Your task to perform on an android device: turn notification dots off Image 0: 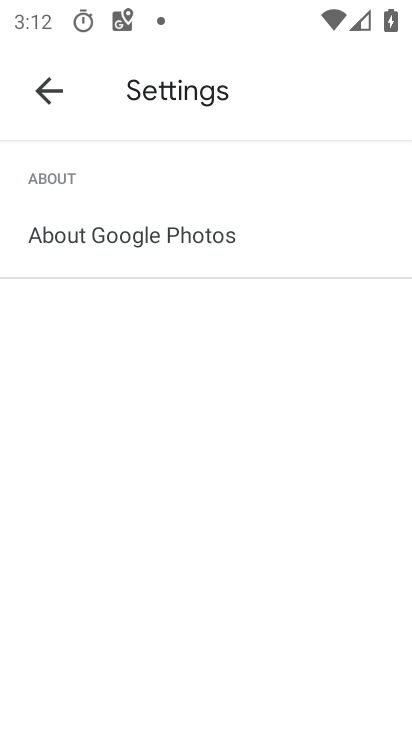
Step 0: press home button
Your task to perform on an android device: turn notification dots off Image 1: 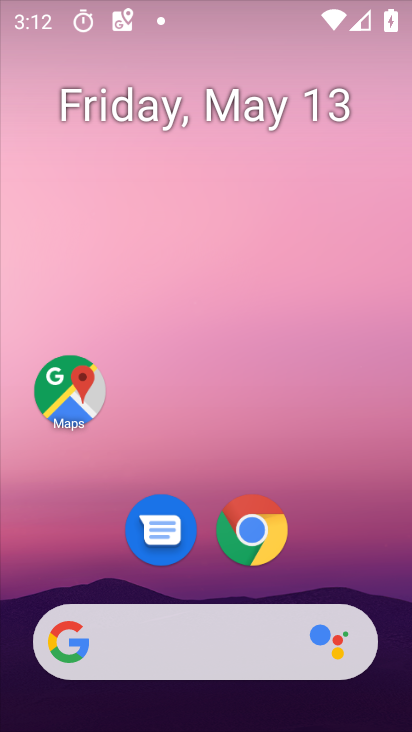
Step 1: drag from (344, 543) to (349, 47)
Your task to perform on an android device: turn notification dots off Image 2: 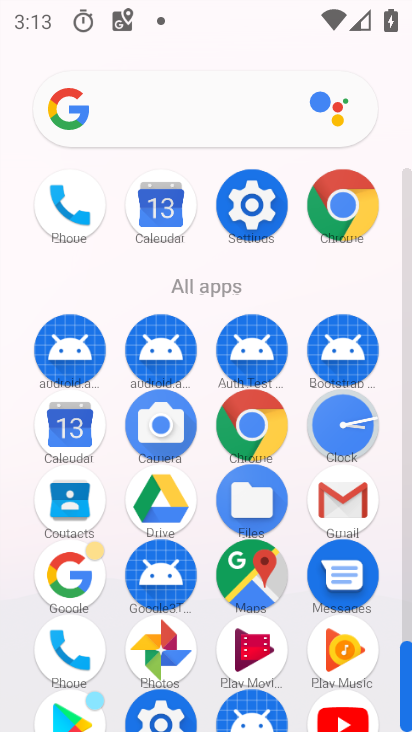
Step 2: click (239, 209)
Your task to perform on an android device: turn notification dots off Image 3: 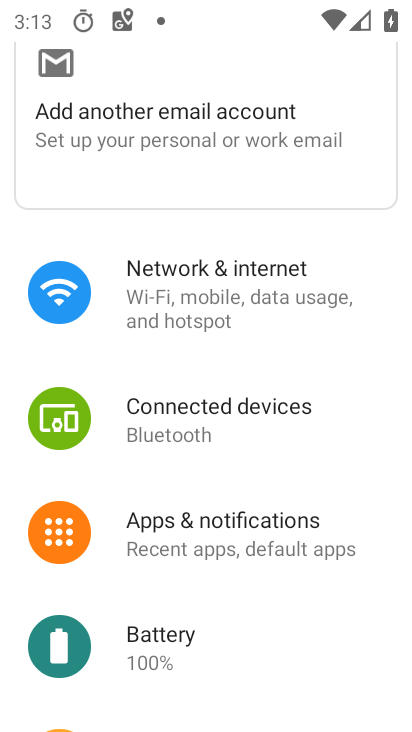
Step 3: drag from (209, 551) to (227, 243)
Your task to perform on an android device: turn notification dots off Image 4: 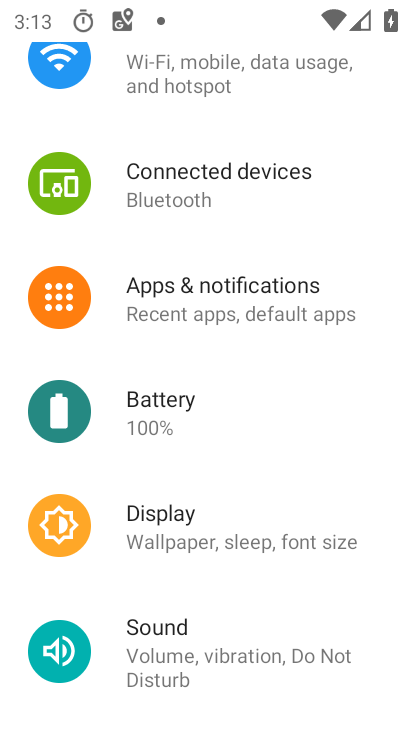
Step 4: click (222, 299)
Your task to perform on an android device: turn notification dots off Image 5: 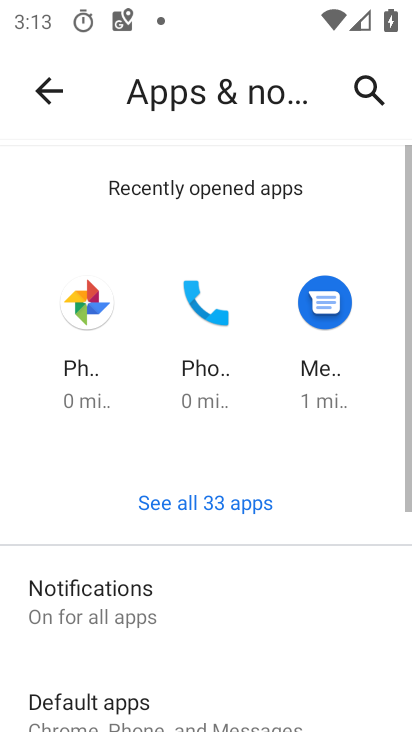
Step 5: drag from (183, 637) to (278, 152)
Your task to perform on an android device: turn notification dots off Image 6: 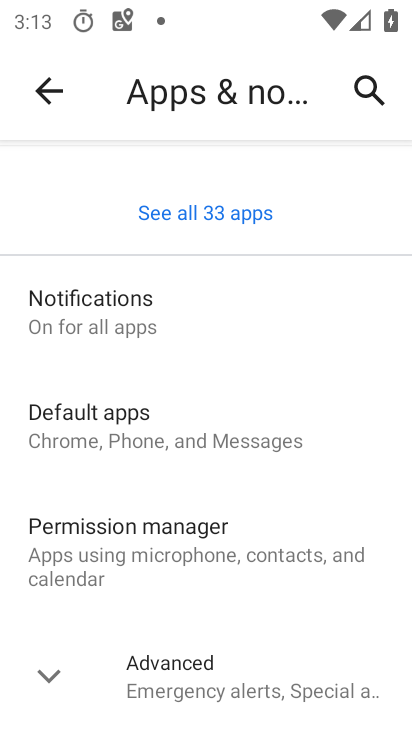
Step 6: click (202, 676)
Your task to perform on an android device: turn notification dots off Image 7: 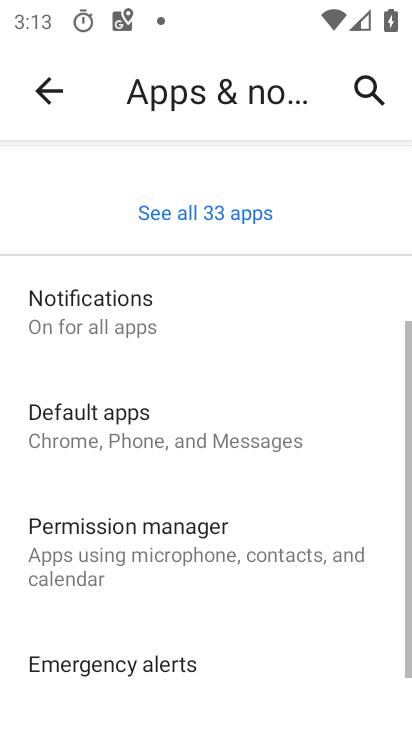
Step 7: drag from (243, 618) to (254, 106)
Your task to perform on an android device: turn notification dots off Image 8: 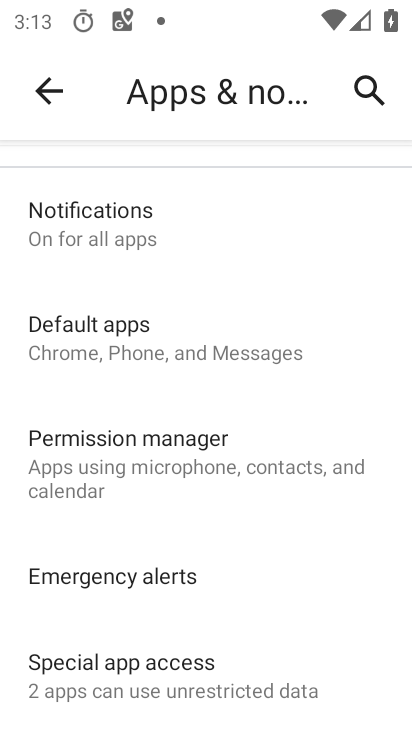
Step 8: click (66, 211)
Your task to perform on an android device: turn notification dots off Image 9: 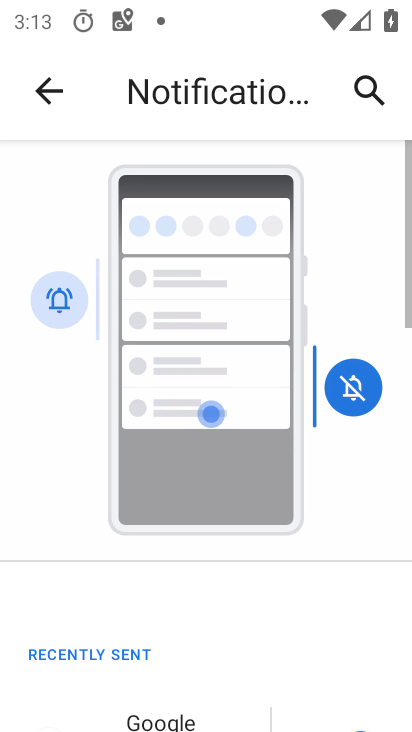
Step 9: drag from (215, 650) to (273, 126)
Your task to perform on an android device: turn notification dots off Image 10: 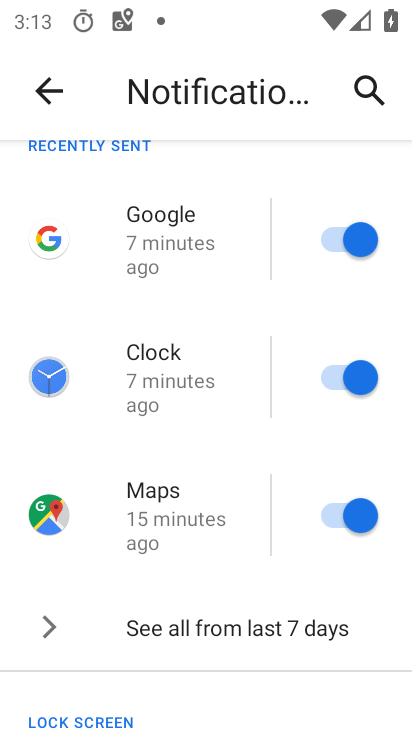
Step 10: drag from (156, 620) to (244, 164)
Your task to perform on an android device: turn notification dots off Image 11: 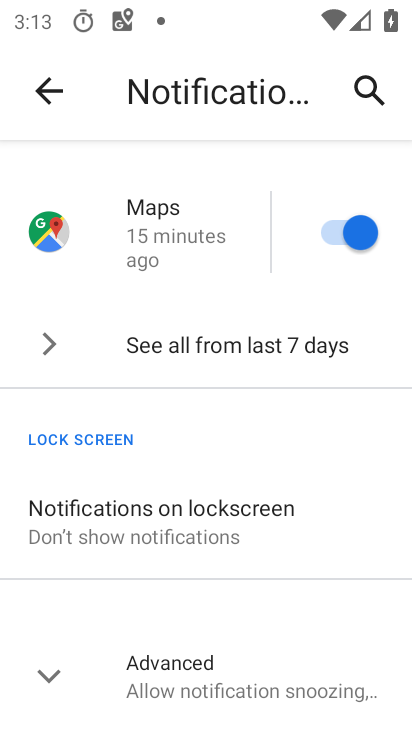
Step 11: click (171, 696)
Your task to perform on an android device: turn notification dots off Image 12: 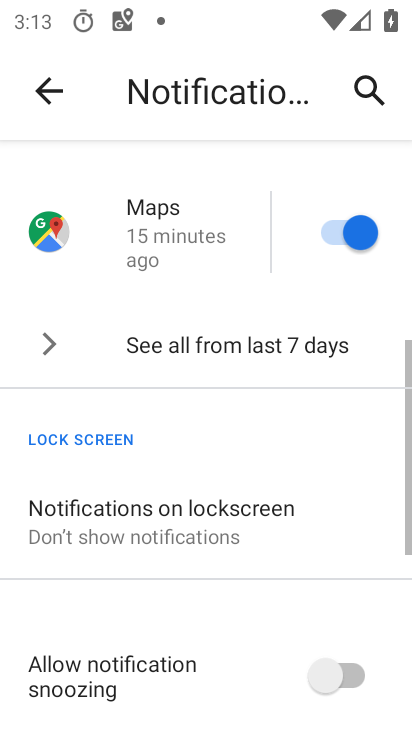
Step 12: drag from (182, 681) to (276, 233)
Your task to perform on an android device: turn notification dots off Image 13: 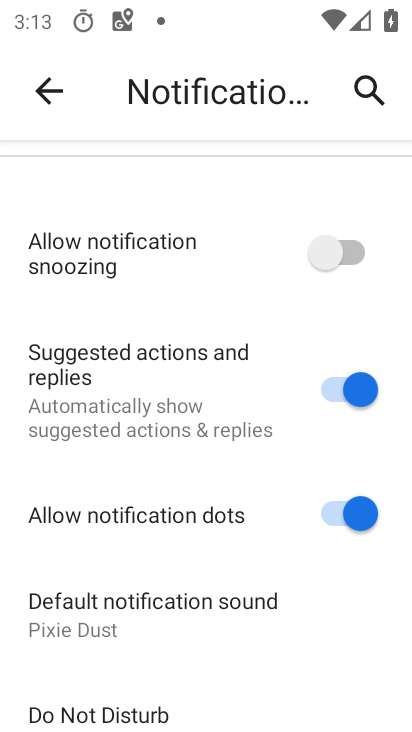
Step 13: drag from (257, 639) to (245, 252)
Your task to perform on an android device: turn notification dots off Image 14: 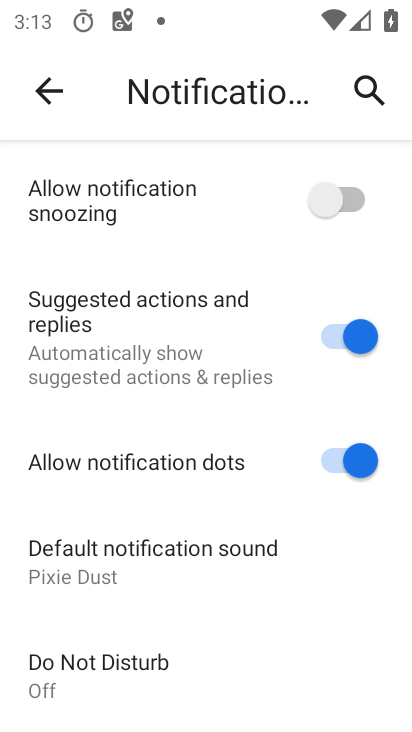
Step 14: click (352, 467)
Your task to perform on an android device: turn notification dots off Image 15: 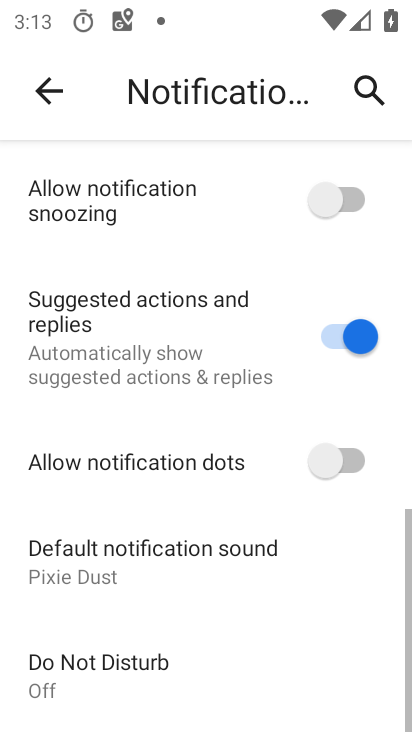
Step 15: task complete